Your task to perform on an android device: What's on my calendar tomorrow? Image 0: 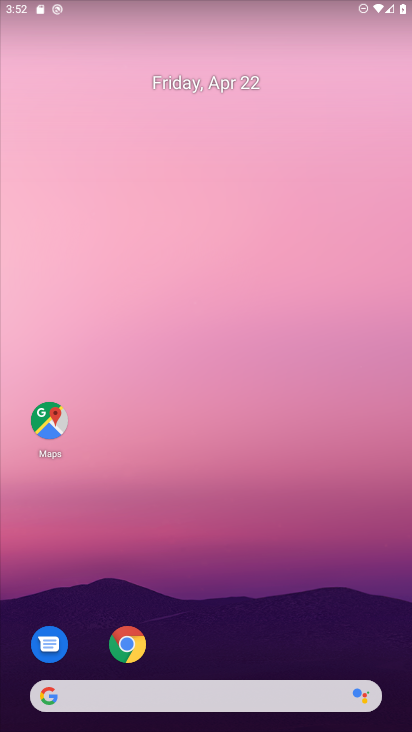
Step 0: drag from (280, 637) to (361, 131)
Your task to perform on an android device: What's on my calendar tomorrow? Image 1: 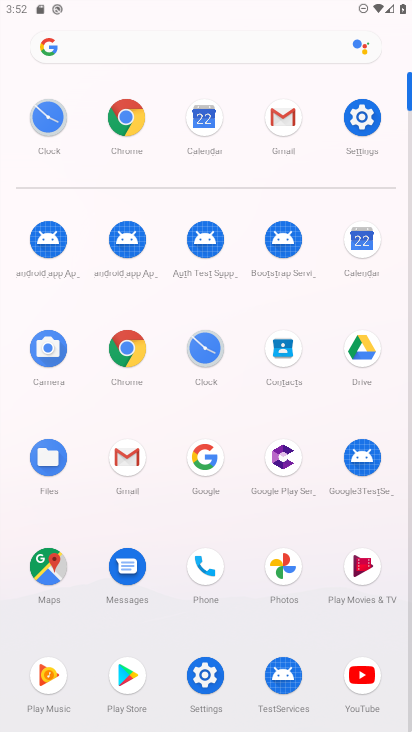
Step 1: click (354, 244)
Your task to perform on an android device: What's on my calendar tomorrow? Image 2: 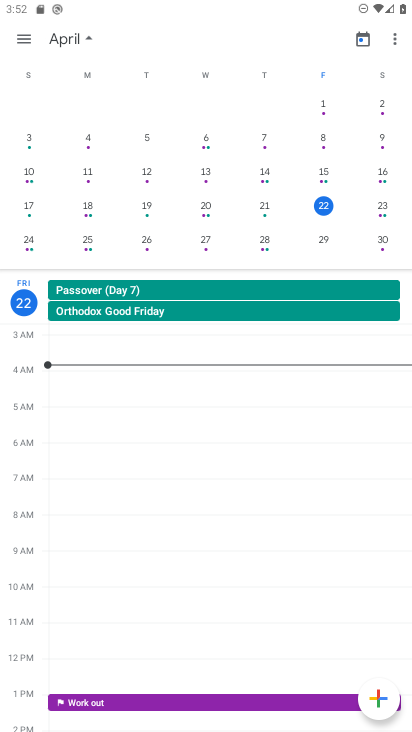
Step 2: click (381, 203)
Your task to perform on an android device: What's on my calendar tomorrow? Image 3: 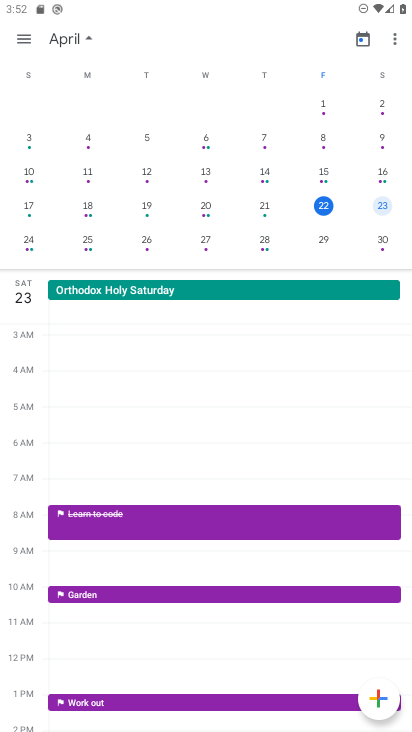
Step 3: task complete